Your task to perform on an android device: What is the news today? Image 0: 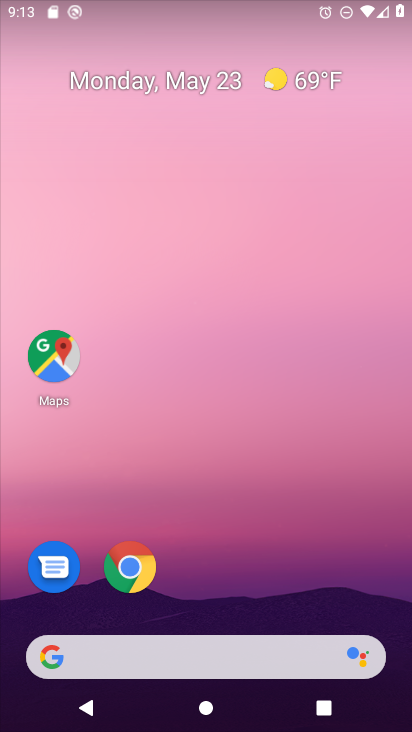
Step 0: drag from (239, 599) to (245, 400)
Your task to perform on an android device: What is the news today? Image 1: 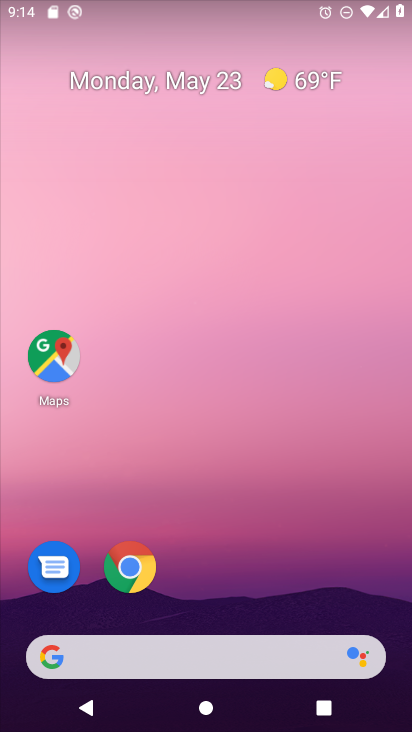
Step 1: click (212, 653)
Your task to perform on an android device: What is the news today? Image 2: 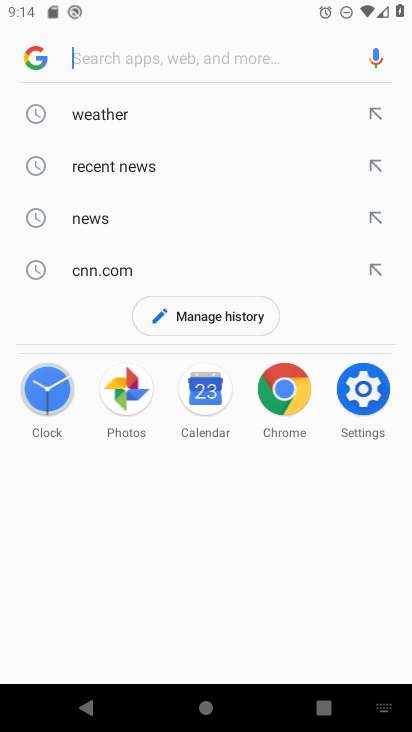
Step 2: type "news today?"
Your task to perform on an android device: What is the news today? Image 3: 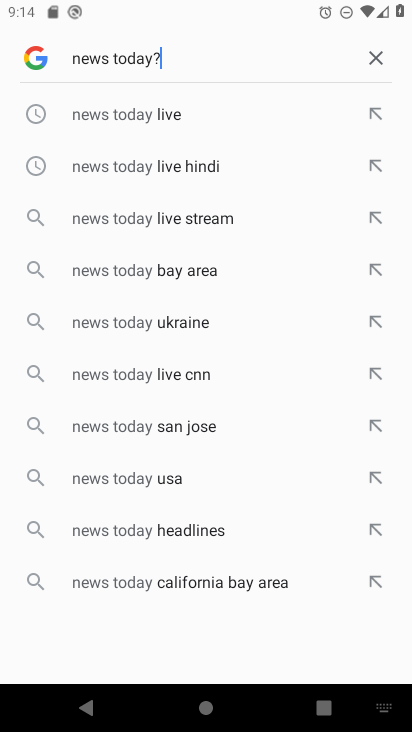
Step 3: click (113, 103)
Your task to perform on an android device: What is the news today? Image 4: 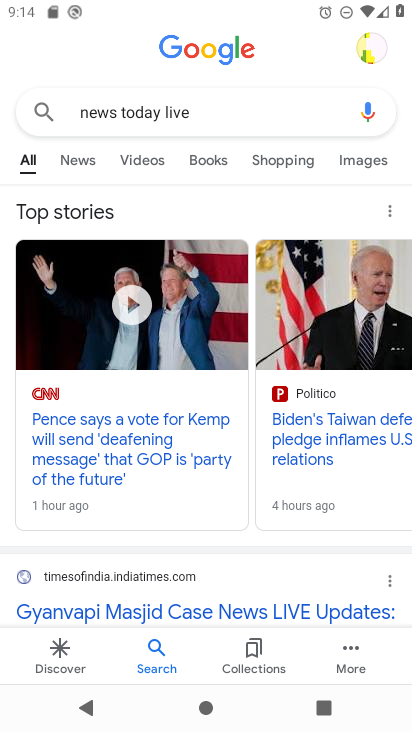
Step 4: task complete